Your task to perform on an android device: turn off smart reply in the gmail app Image 0: 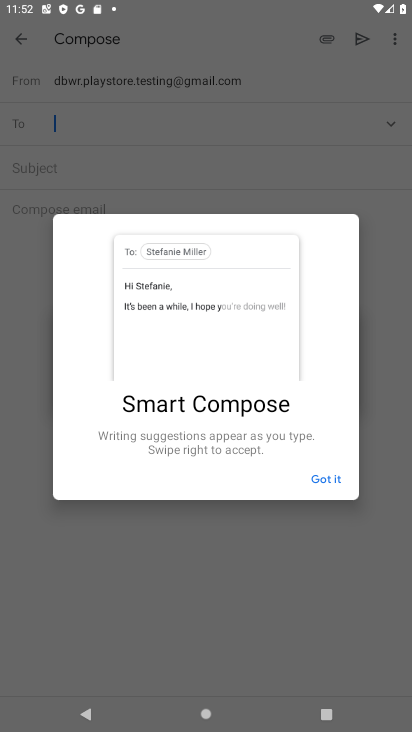
Step 0: press home button
Your task to perform on an android device: turn off smart reply in the gmail app Image 1: 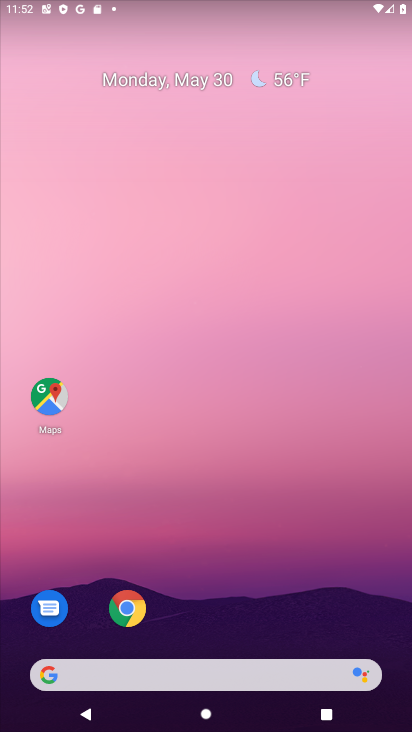
Step 1: drag from (191, 608) to (271, 125)
Your task to perform on an android device: turn off smart reply in the gmail app Image 2: 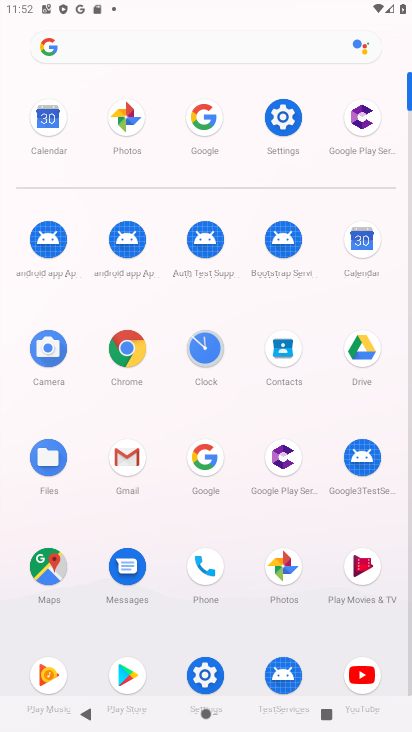
Step 2: click (125, 467)
Your task to perform on an android device: turn off smart reply in the gmail app Image 3: 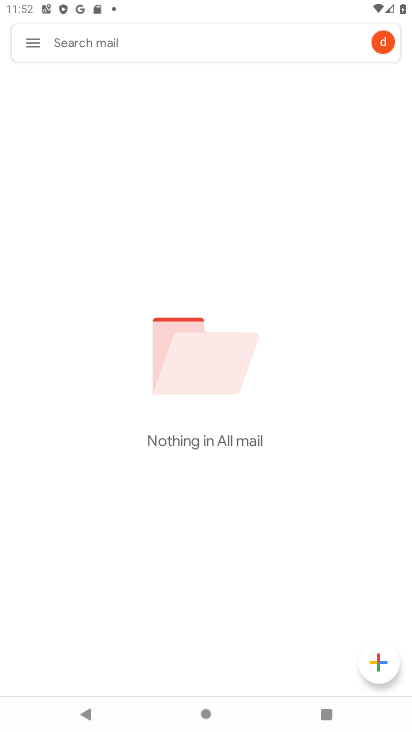
Step 3: click (33, 39)
Your task to perform on an android device: turn off smart reply in the gmail app Image 4: 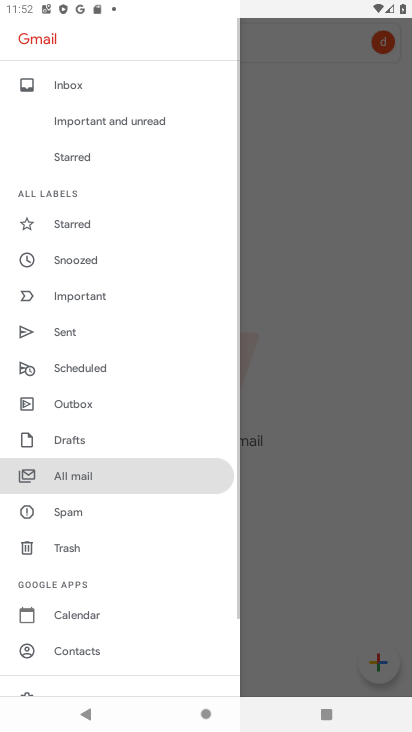
Step 4: drag from (58, 611) to (138, 207)
Your task to perform on an android device: turn off smart reply in the gmail app Image 5: 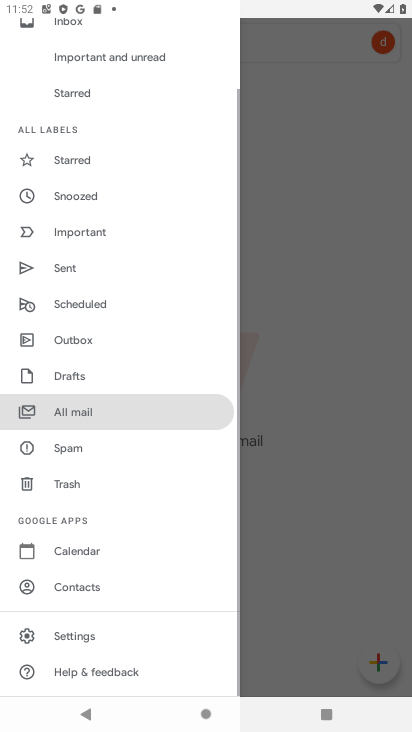
Step 5: click (42, 636)
Your task to perform on an android device: turn off smart reply in the gmail app Image 6: 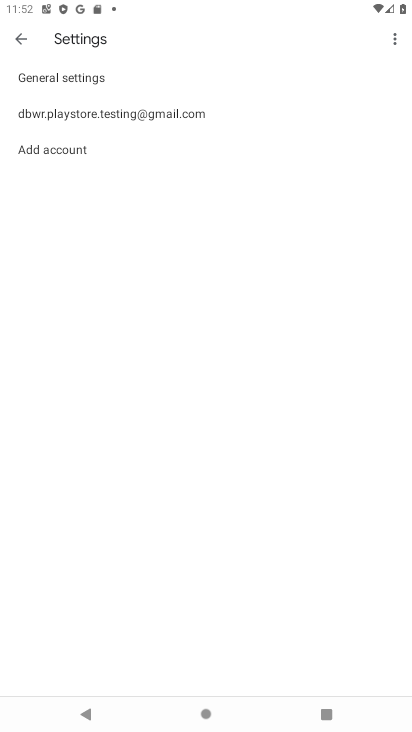
Step 6: click (82, 115)
Your task to perform on an android device: turn off smart reply in the gmail app Image 7: 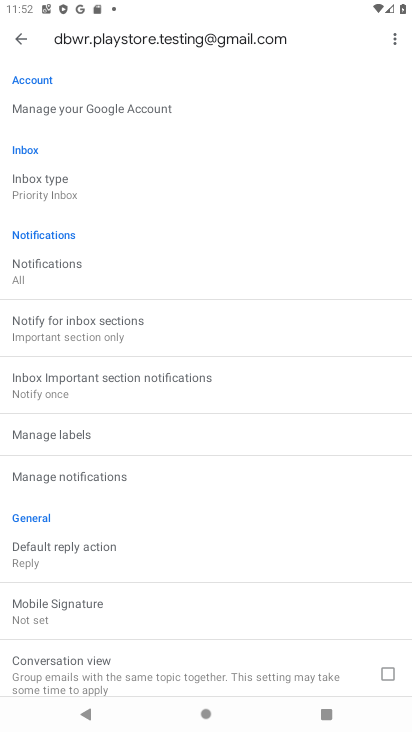
Step 7: drag from (149, 586) to (191, 130)
Your task to perform on an android device: turn off smart reply in the gmail app Image 8: 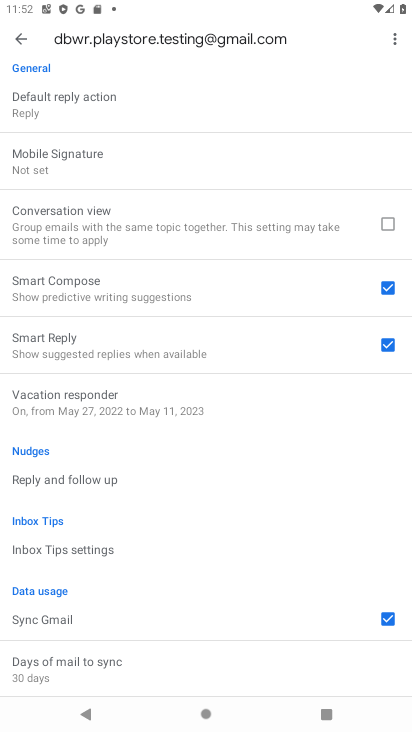
Step 8: drag from (189, 596) to (185, 451)
Your task to perform on an android device: turn off smart reply in the gmail app Image 9: 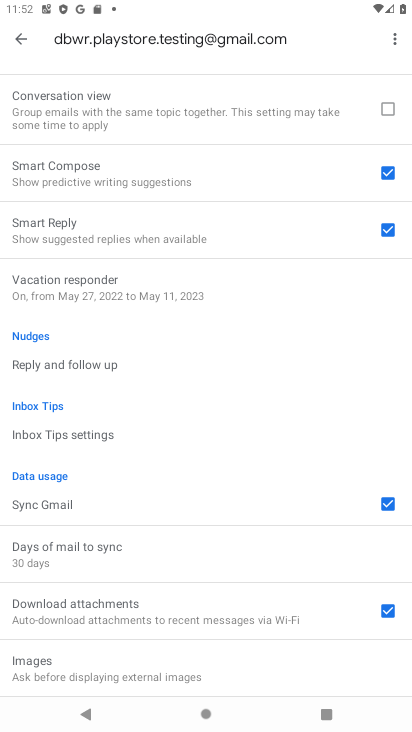
Step 9: click (387, 224)
Your task to perform on an android device: turn off smart reply in the gmail app Image 10: 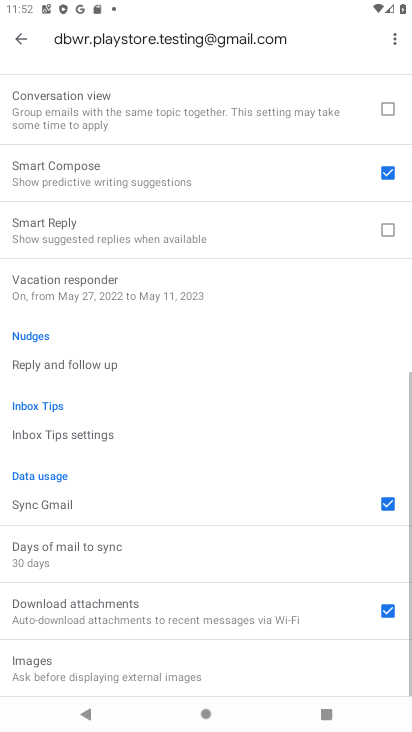
Step 10: task complete